Your task to perform on an android device: Go to battery settings Image 0: 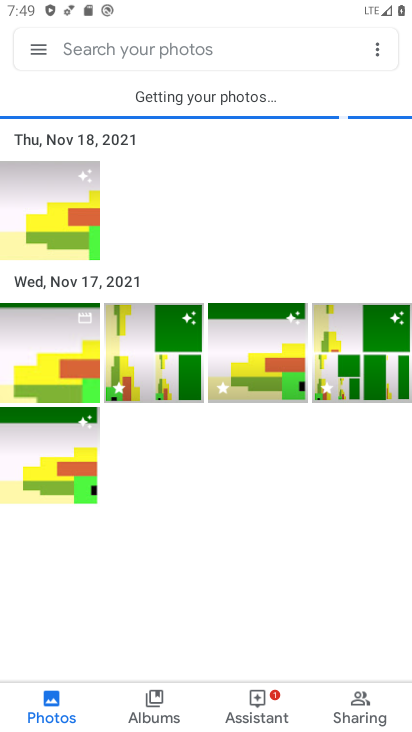
Step 0: press home button
Your task to perform on an android device: Go to battery settings Image 1: 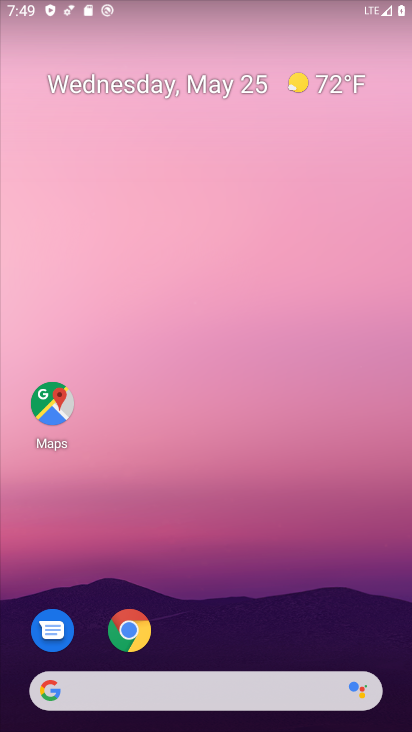
Step 1: drag from (227, 645) to (224, 279)
Your task to perform on an android device: Go to battery settings Image 2: 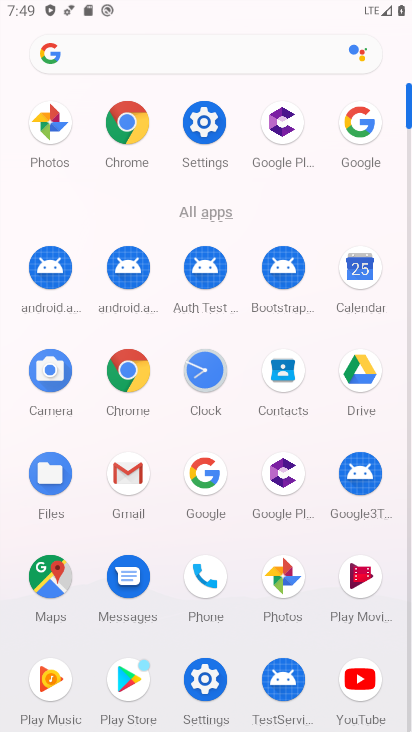
Step 2: click (204, 129)
Your task to perform on an android device: Go to battery settings Image 3: 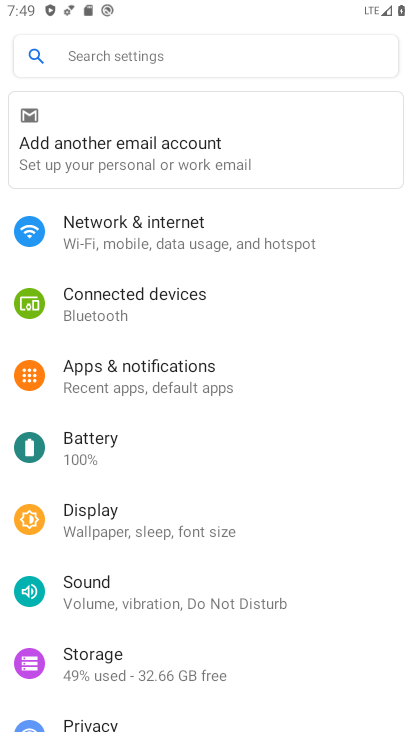
Step 3: click (129, 450)
Your task to perform on an android device: Go to battery settings Image 4: 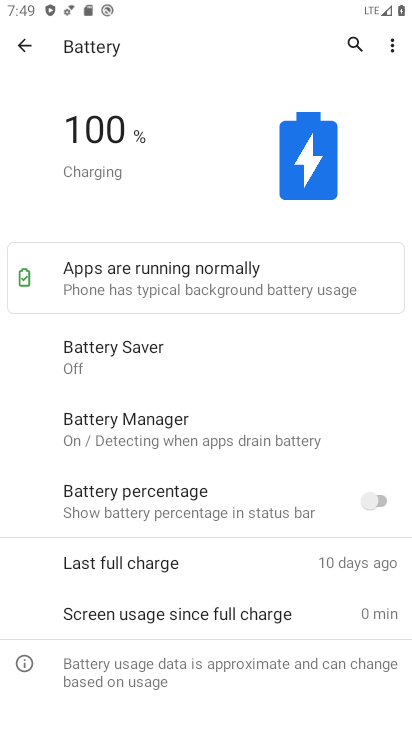
Step 4: task complete